Your task to perform on an android device: Open Youtube and go to the subscriptions tab Image 0: 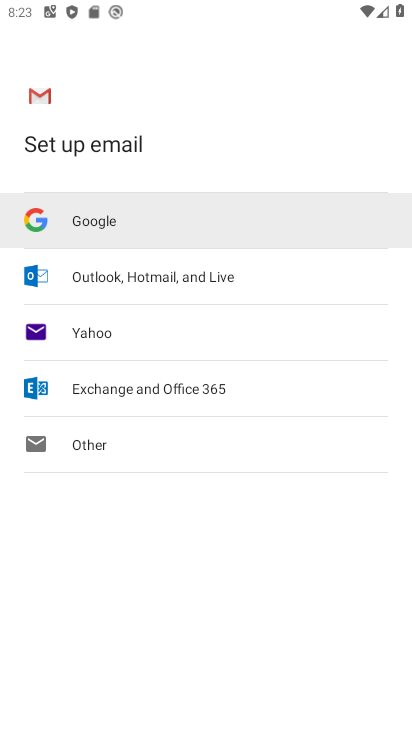
Step 0: press home button
Your task to perform on an android device: Open Youtube and go to the subscriptions tab Image 1: 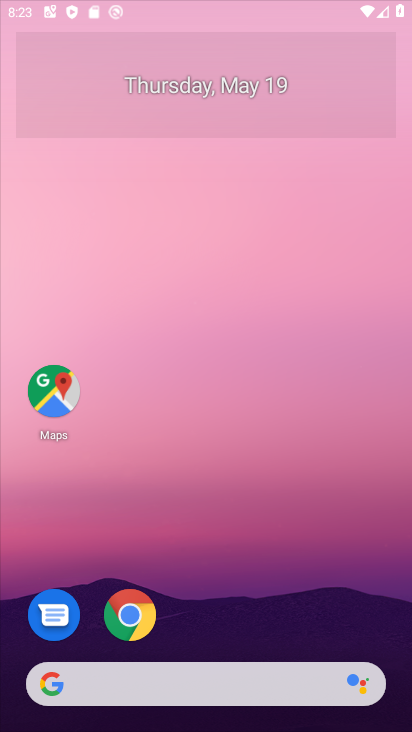
Step 1: drag from (239, 615) to (256, 109)
Your task to perform on an android device: Open Youtube and go to the subscriptions tab Image 2: 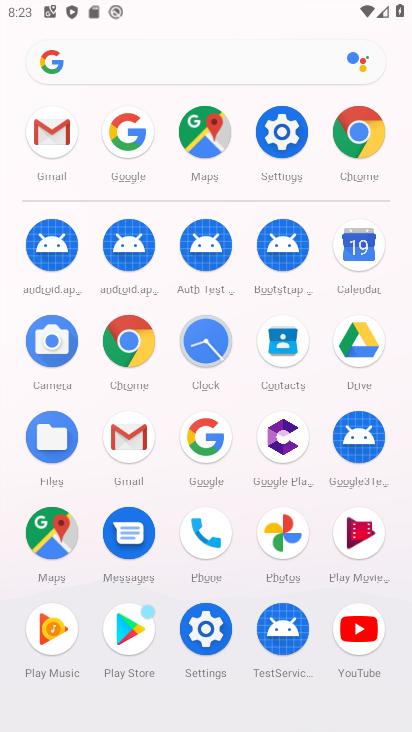
Step 2: click (364, 623)
Your task to perform on an android device: Open Youtube and go to the subscriptions tab Image 3: 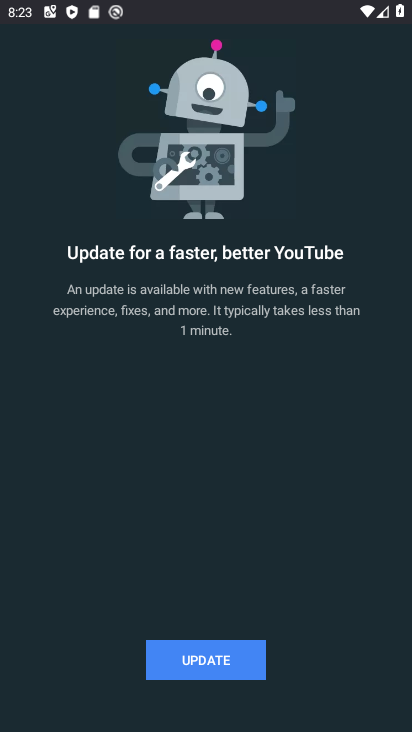
Step 3: click (188, 653)
Your task to perform on an android device: Open Youtube and go to the subscriptions tab Image 4: 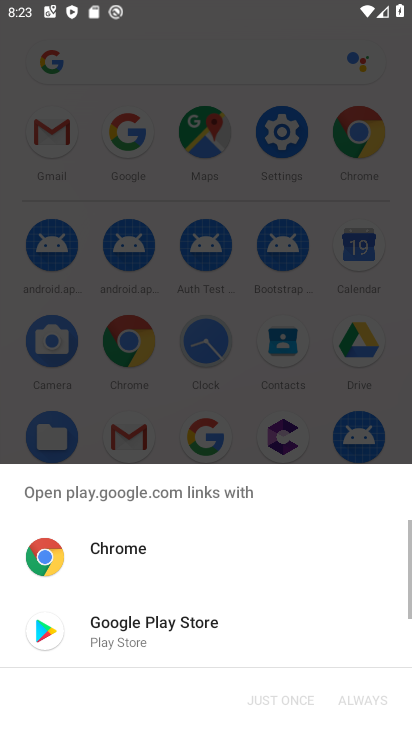
Step 4: click (126, 631)
Your task to perform on an android device: Open Youtube and go to the subscriptions tab Image 5: 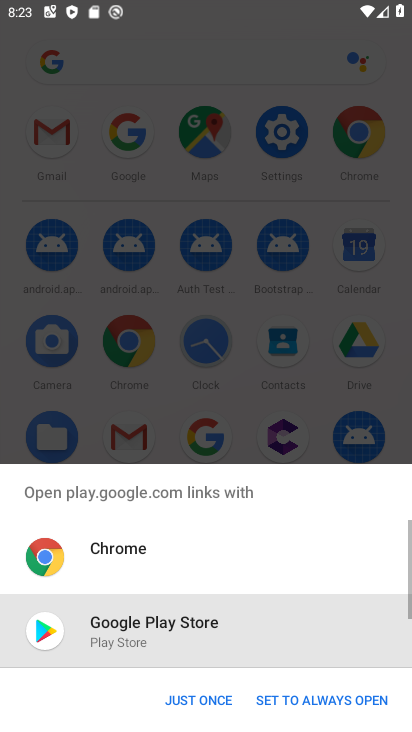
Step 5: click (196, 698)
Your task to perform on an android device: Open Youtube and go to the subscriptions tab Image 6: 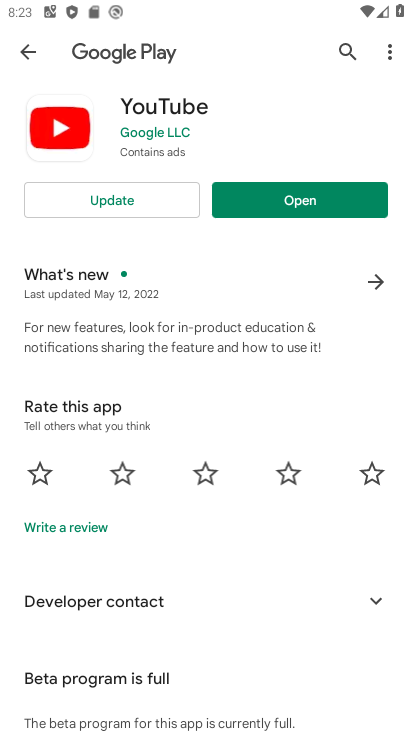
Step 6: click (137, 202)
Your task to perform on an android device: Open Youtube and go to the subscriptions tab Image 7: 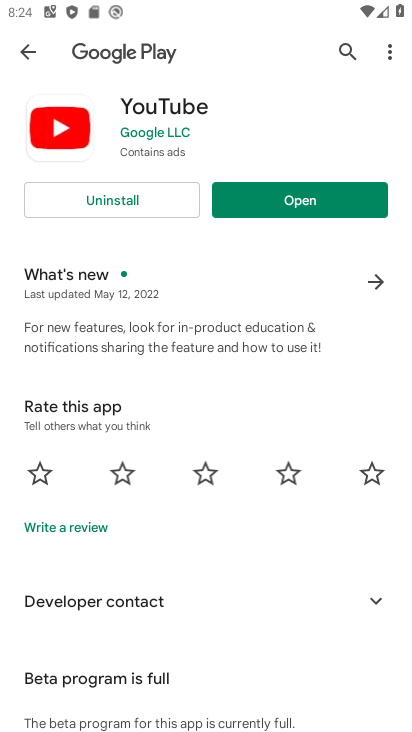
Step 7: click (321, 204)
Your task to perform on an android device: Open Youtube and go to the subscriptions tab Image 8: 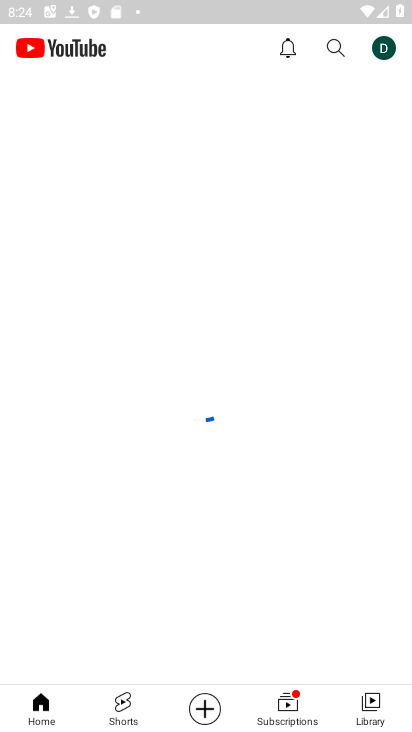
Step 8: click (289, 713)
Your task to perform on an android device: Open Youtube and go to the subscriptions tab Image 9: 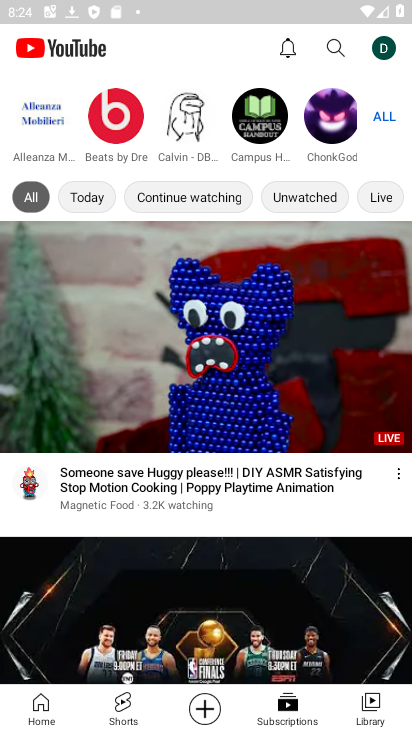
Step 9: task complete